Your task to perform on an android device: toggle translation in the chrome app Image 0: 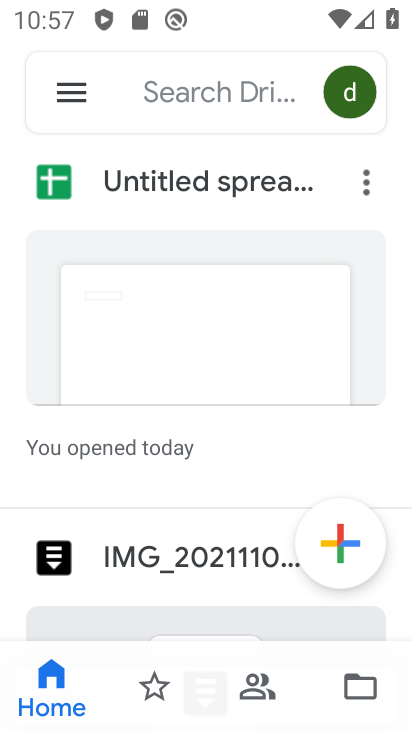
Step 0: task complete